Your task to perform on an android device: delete a single message in the gmail app Image 0: 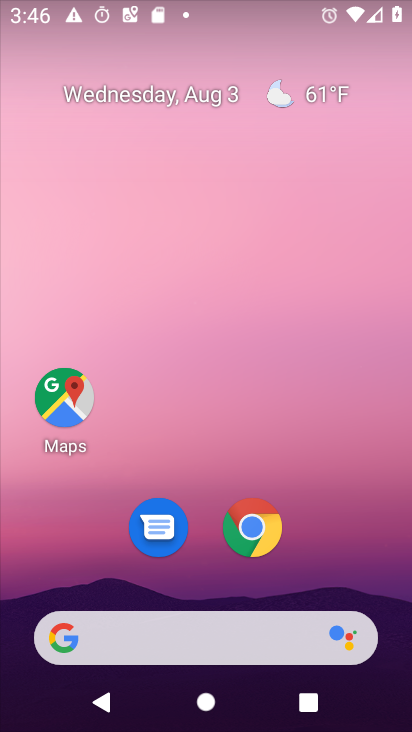
Step 0: drag from (347, 542) to (276, 138)
Your task to perform on an android device: delete a single message in the gmail app Image 1: 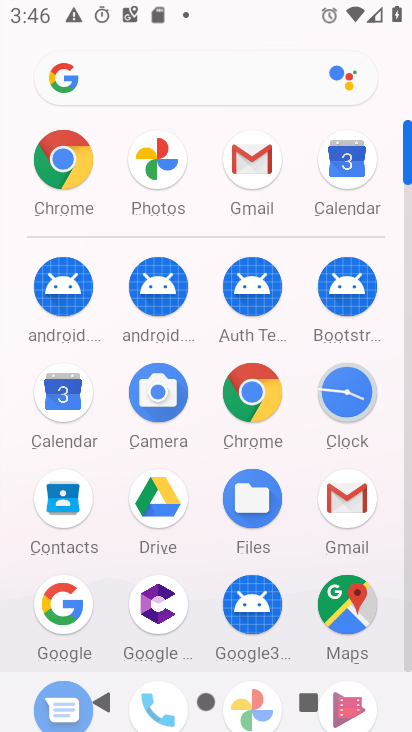
Step 1: click (347, 504)
Your task to perform on an android device: delete a single message in the gmail app Image 2: 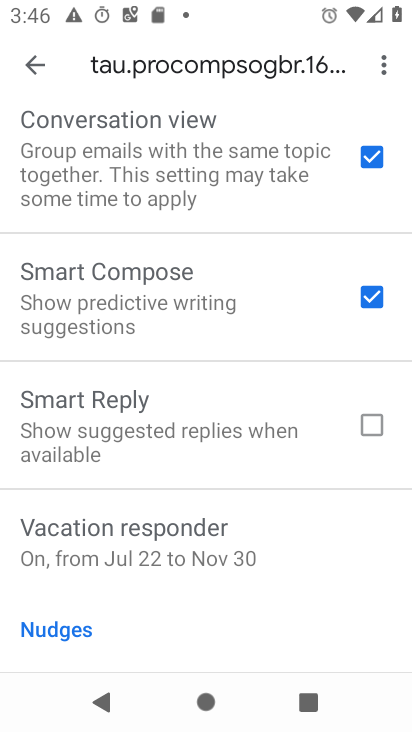
Step 2: click (44, 70)
Your task to perform on an android device: delete a single message in the gmail app Image 3: 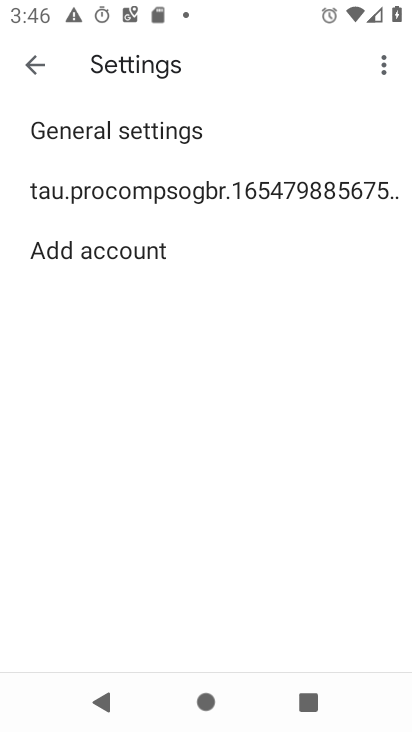
Step 3: click (41, 64)
Your task to perform on an android device: delete a single message in the gmail app Image 4: 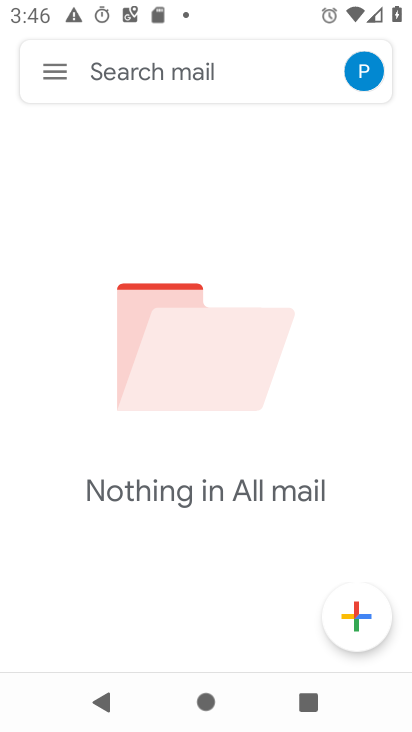
Step 4: task complete